Your task to perform on an android device: Go to privacy settings Image 0: 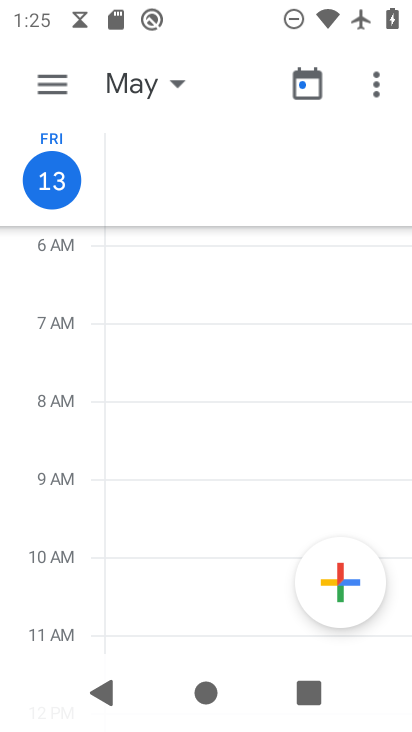
Step 0: press home button
Your task to perform on an android device: Go to privacy settings Image 1: 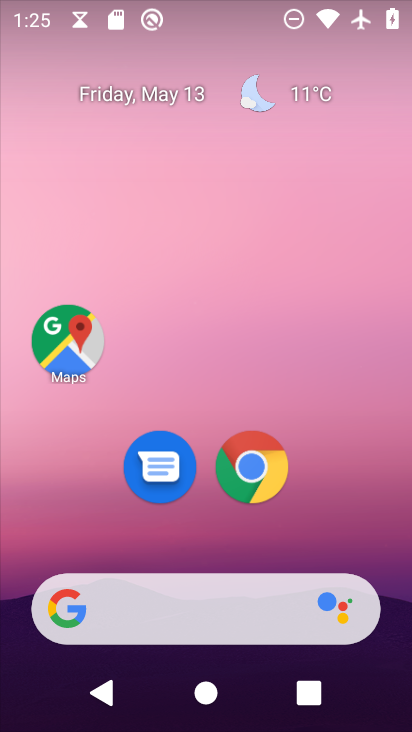
Step 1: drag from (316, 497) to (247, 43)
Your task to perform on an android device: Go to privacy settings Image 2: 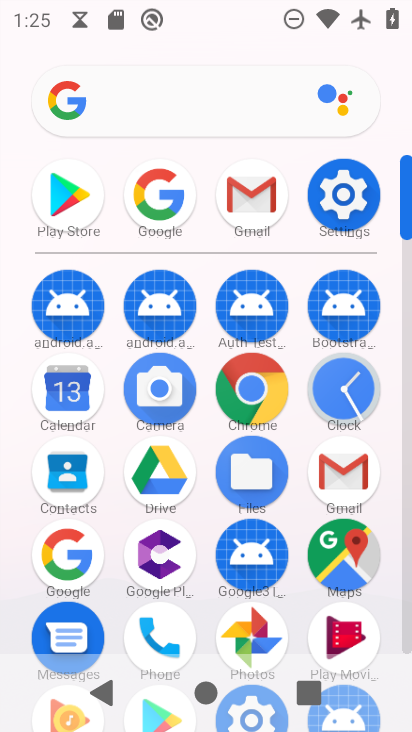
Step 2: click (362, 184)
Your task to perform on an android device: Go to privacy settings Image 3: 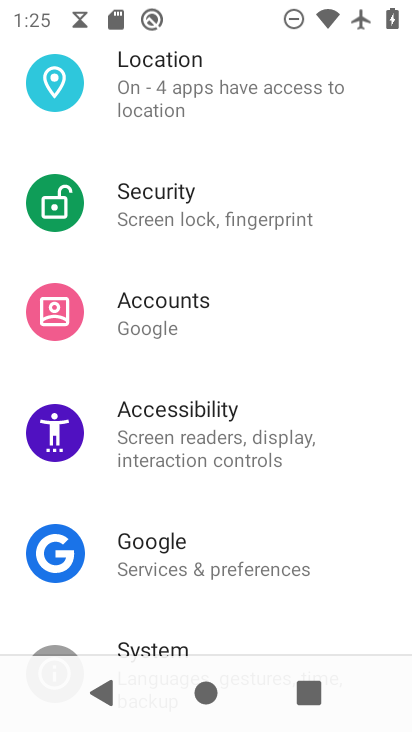
Step 3: drag from (258, 534) to (233, 197)
Your task to perform on an android device: Go to privacy settings Image 4: 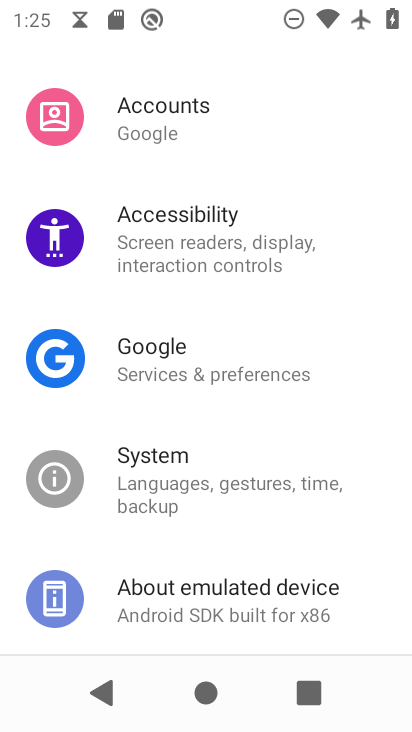
Step 4: drag from (220, 529) to (239, 152)
Your task to perform on an android device: Go to privacy settings Image 5: 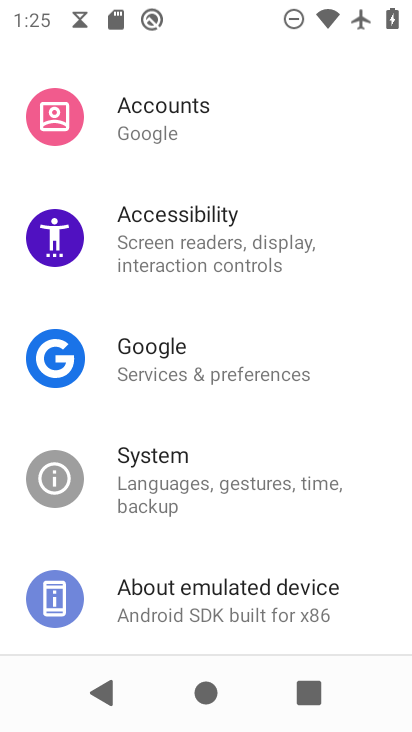
Step 5: drag from (236, 531) to (214, 195)
Your task to perform on an android device: Go to privacy settings Image 6: 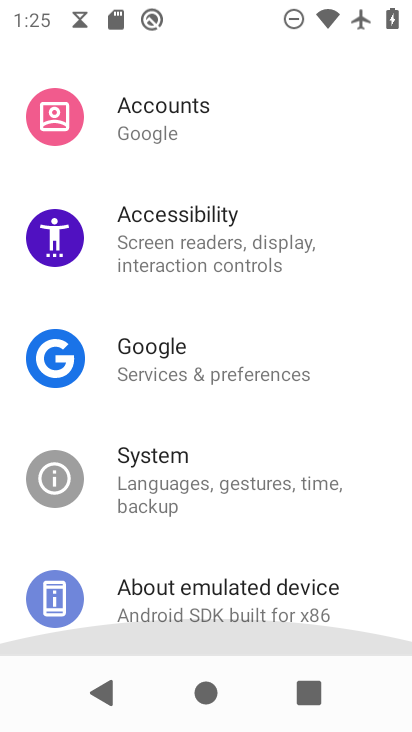
Step 6: drag from (210, 105) to (210, 713)
Your task to perform on an android device: Go to privacy settings Image 7: 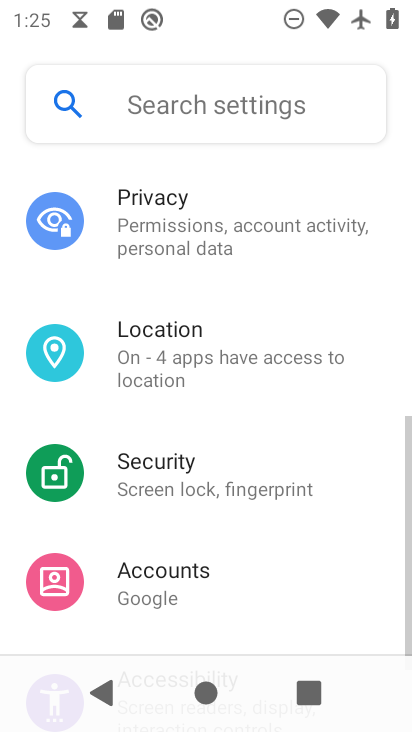
Step 7: drag from (221, 101) to (236, 622)
Your task to perform on an android device: Go to privacy settings Image 8: 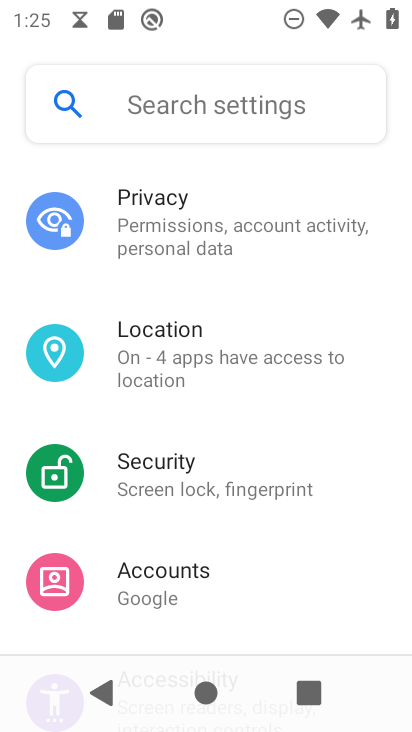
Step 8: click (225, 236)
Your task to perform on an android device: Go to privacy settings Image 9: 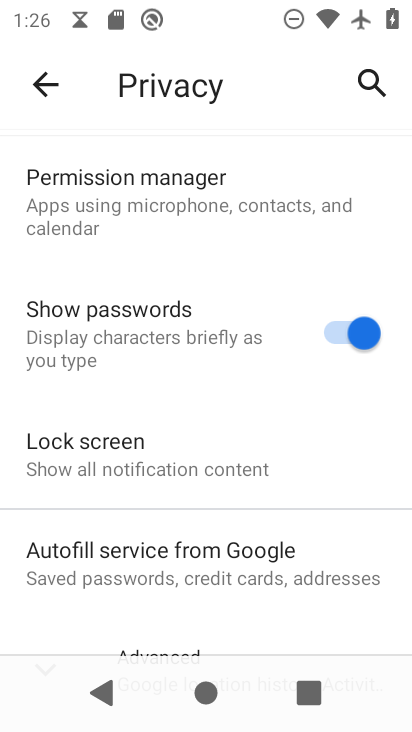
Step 9: task complete